Your task to perform on an android device: install app "Skype" Image 0: 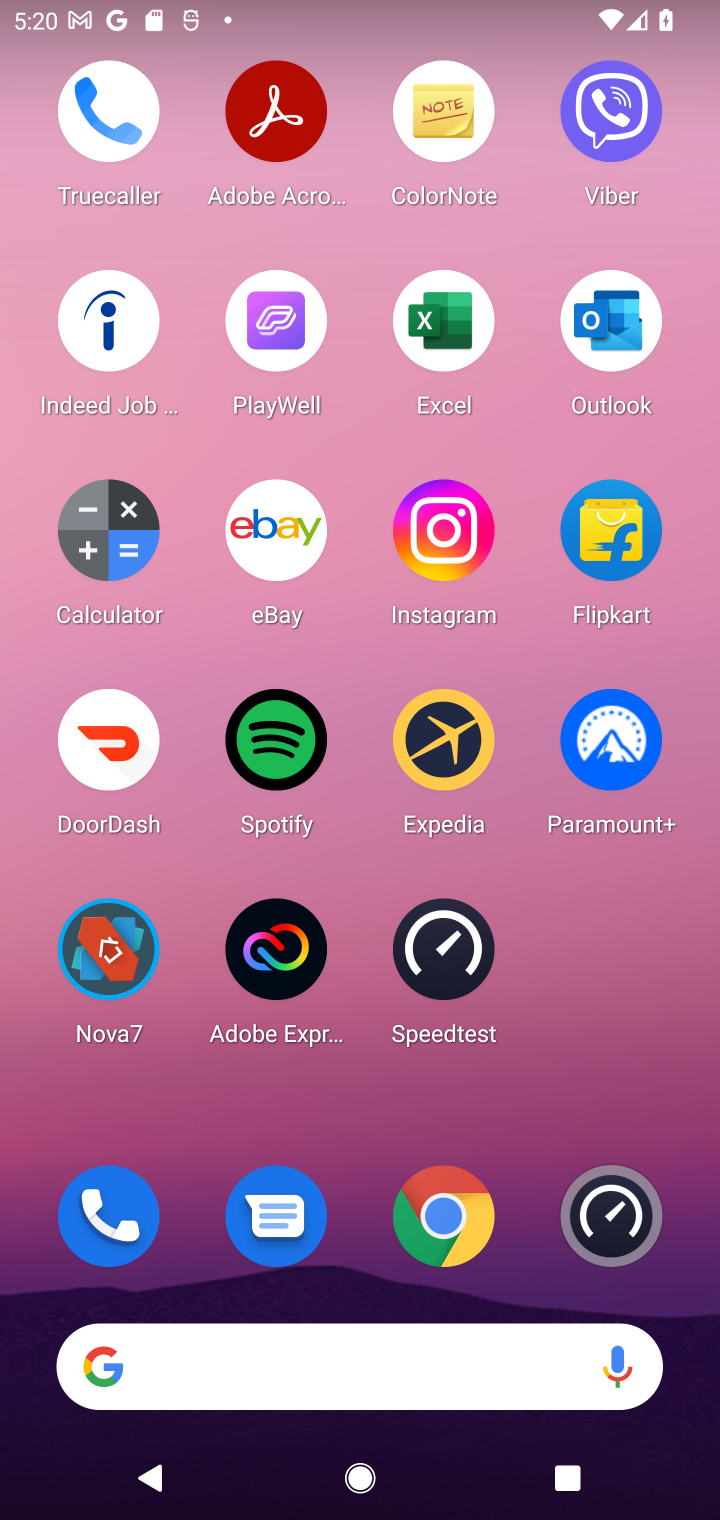
Step 0: drag from (356, 1174) to (397, 299)
Your task to perform on an android device: install app "Skype" Image 1: 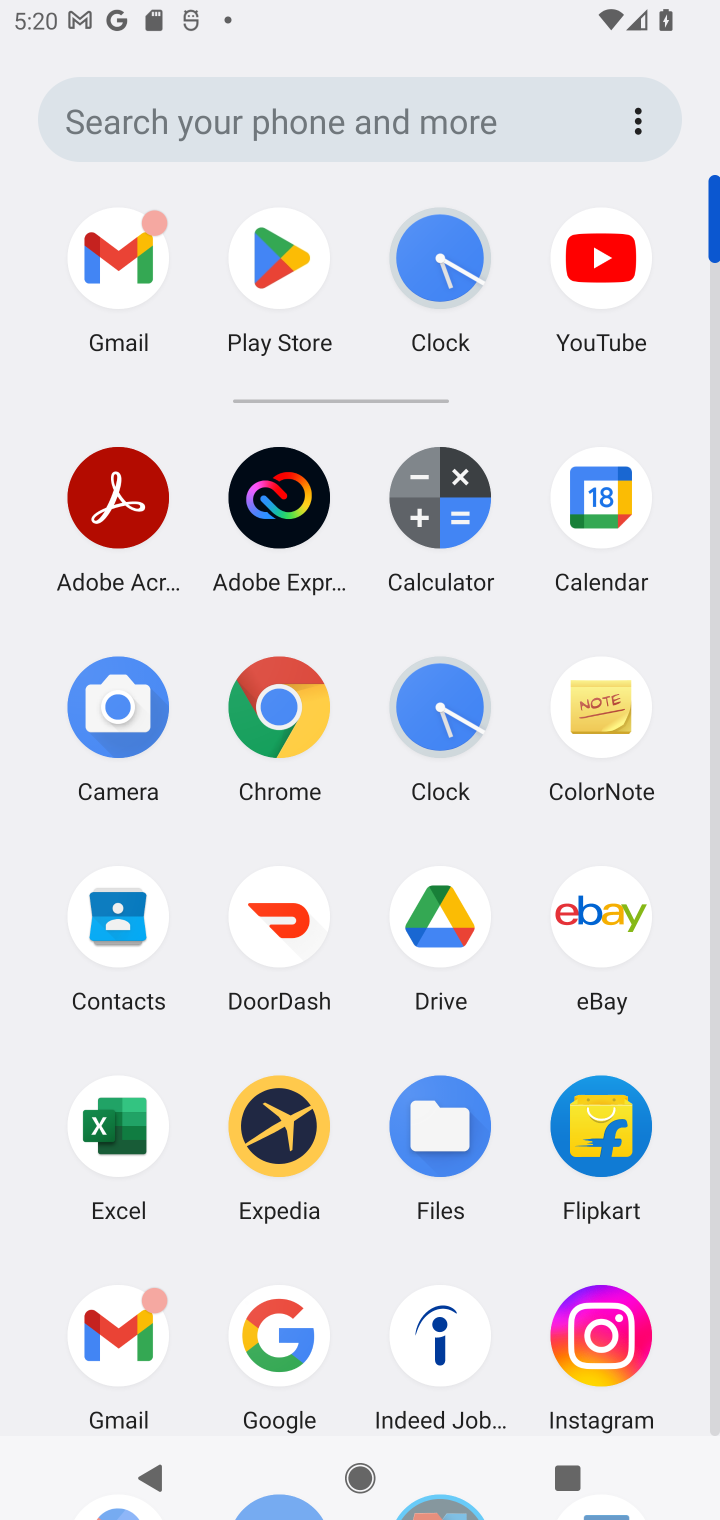
Step 1: drag from (508, 1247) to (525, 472)
Your task to perform on an android device: install app "Skype" Image 2: 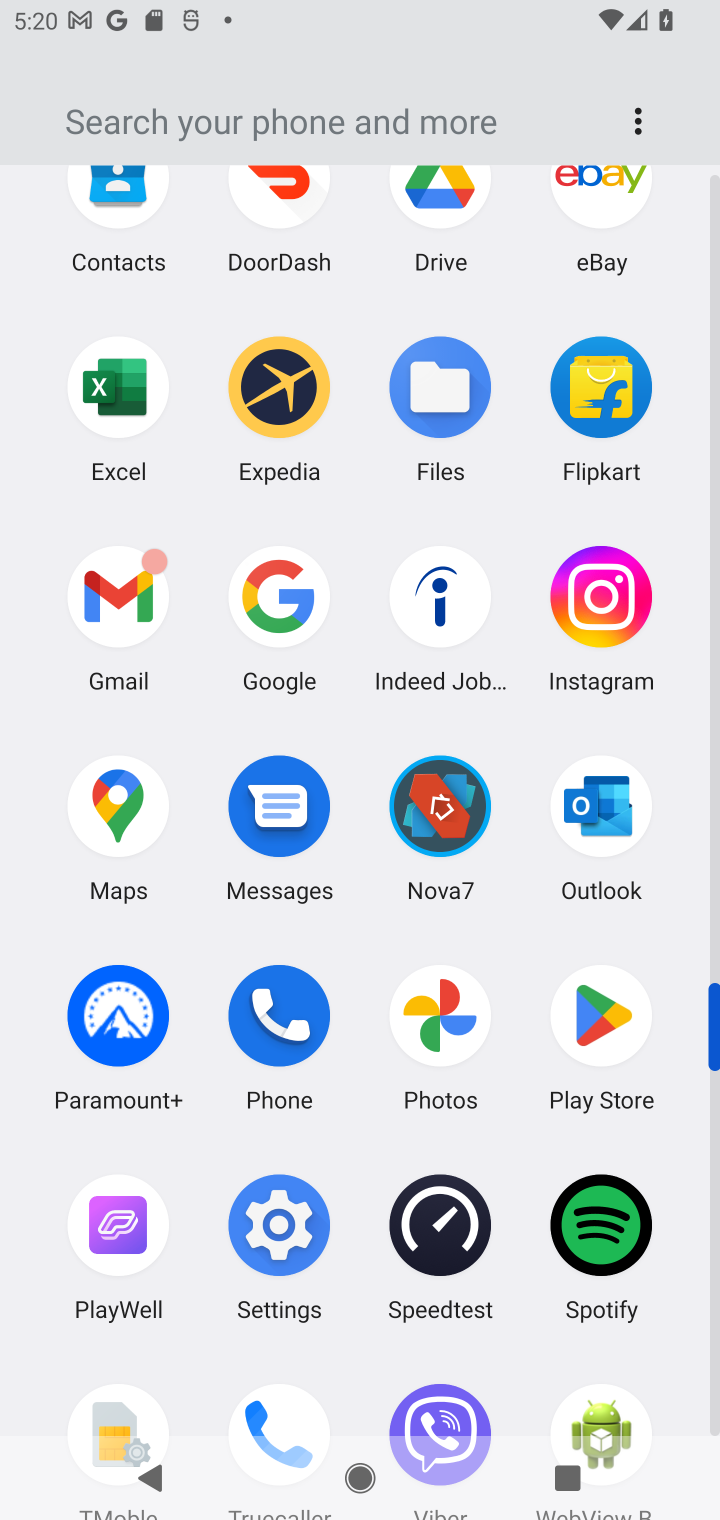
Step 2: click (606, 1018)
Your task to perform on an android device: install app "Skype" Image 3: 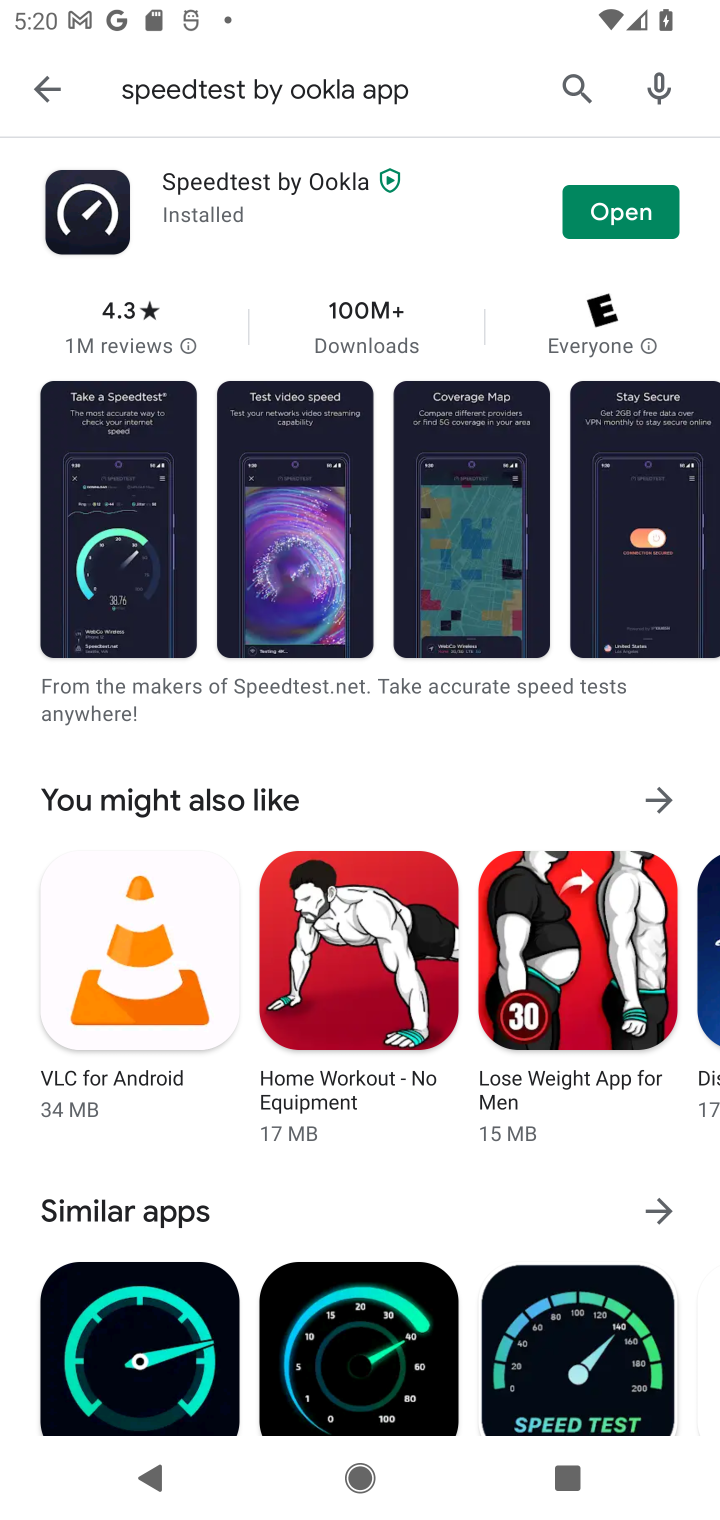
Step 3: click (570, 89)
Your task to perform on an android device: install app "Skype" Image 4: 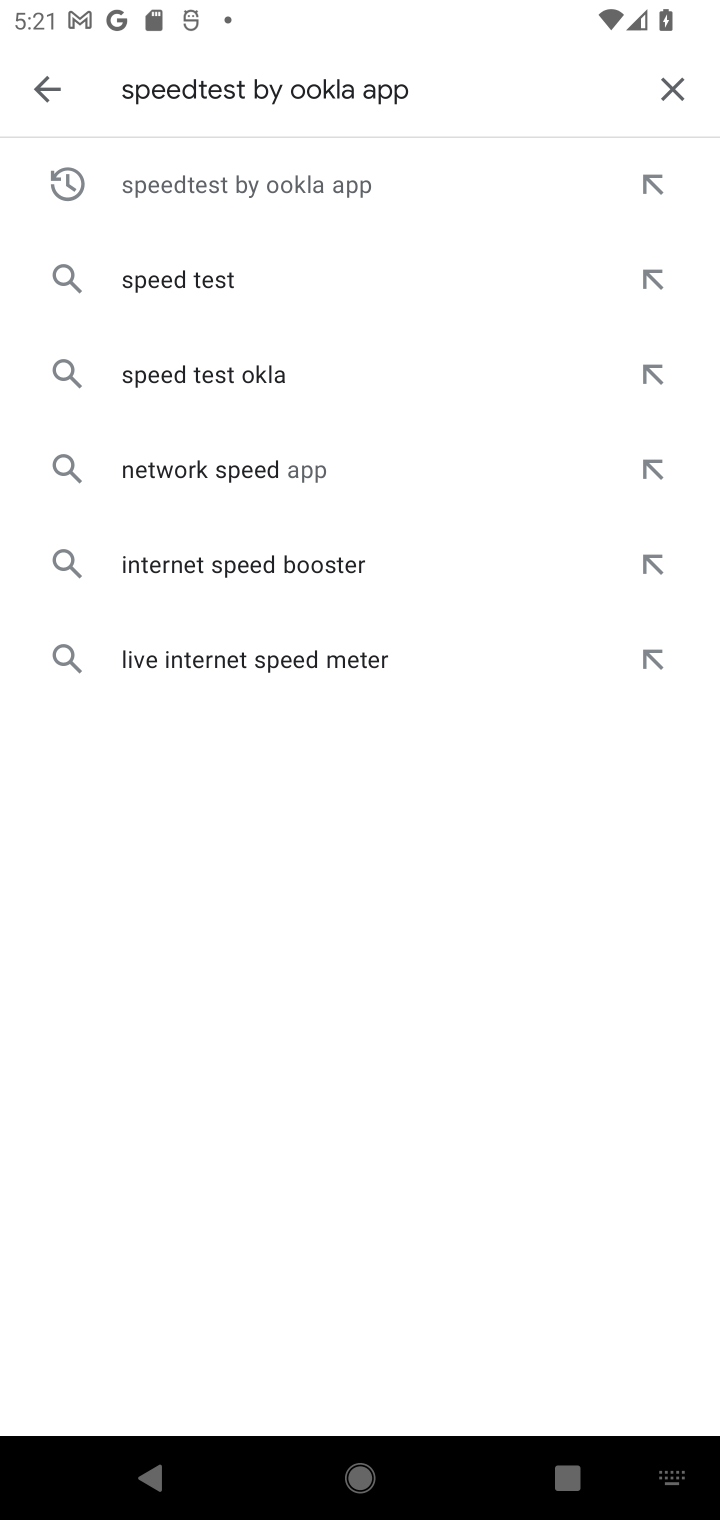
Step 4: click (672, 78)
Your task to perform on an android device: install app "Skype" Image 5: 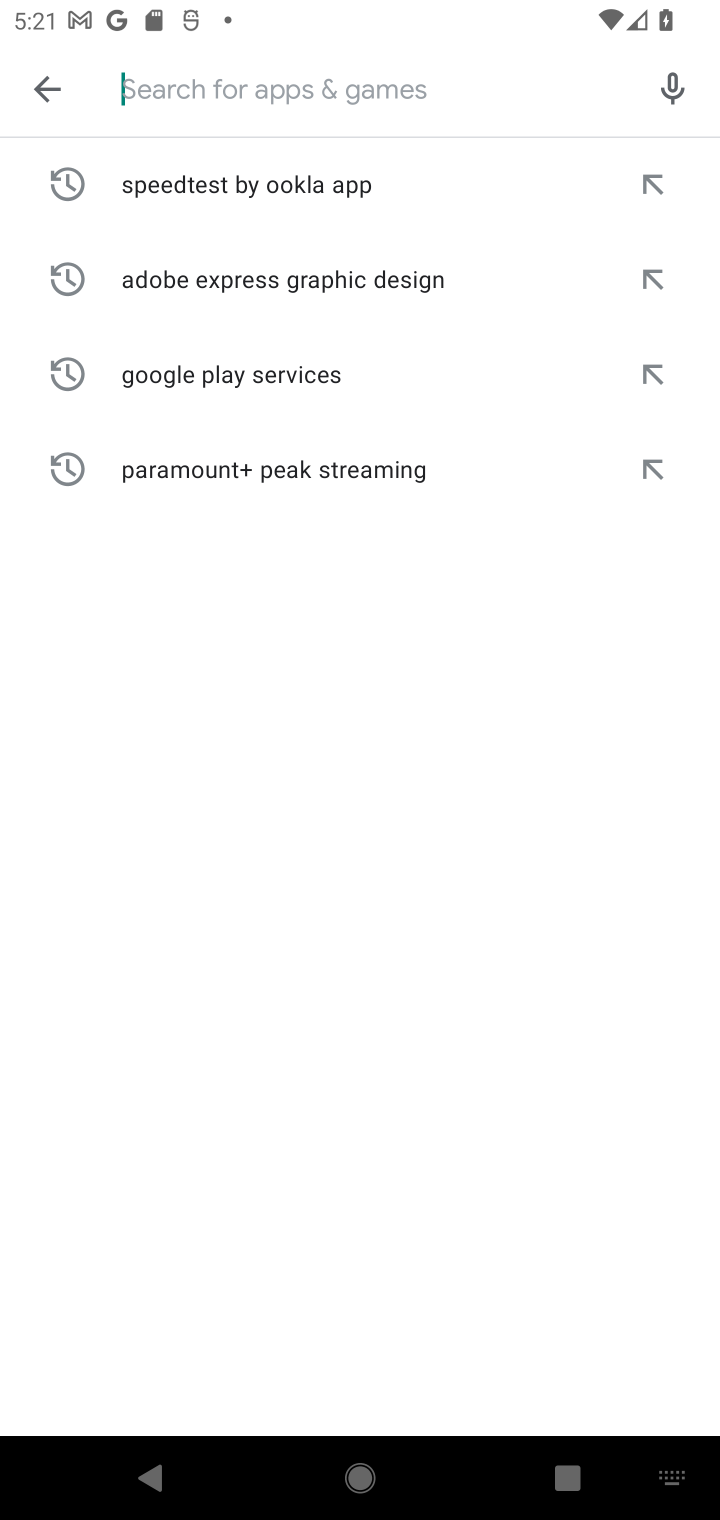
Step 5: type "Skype"
Your task to perform on an android device: install app "Skype" Image 6: 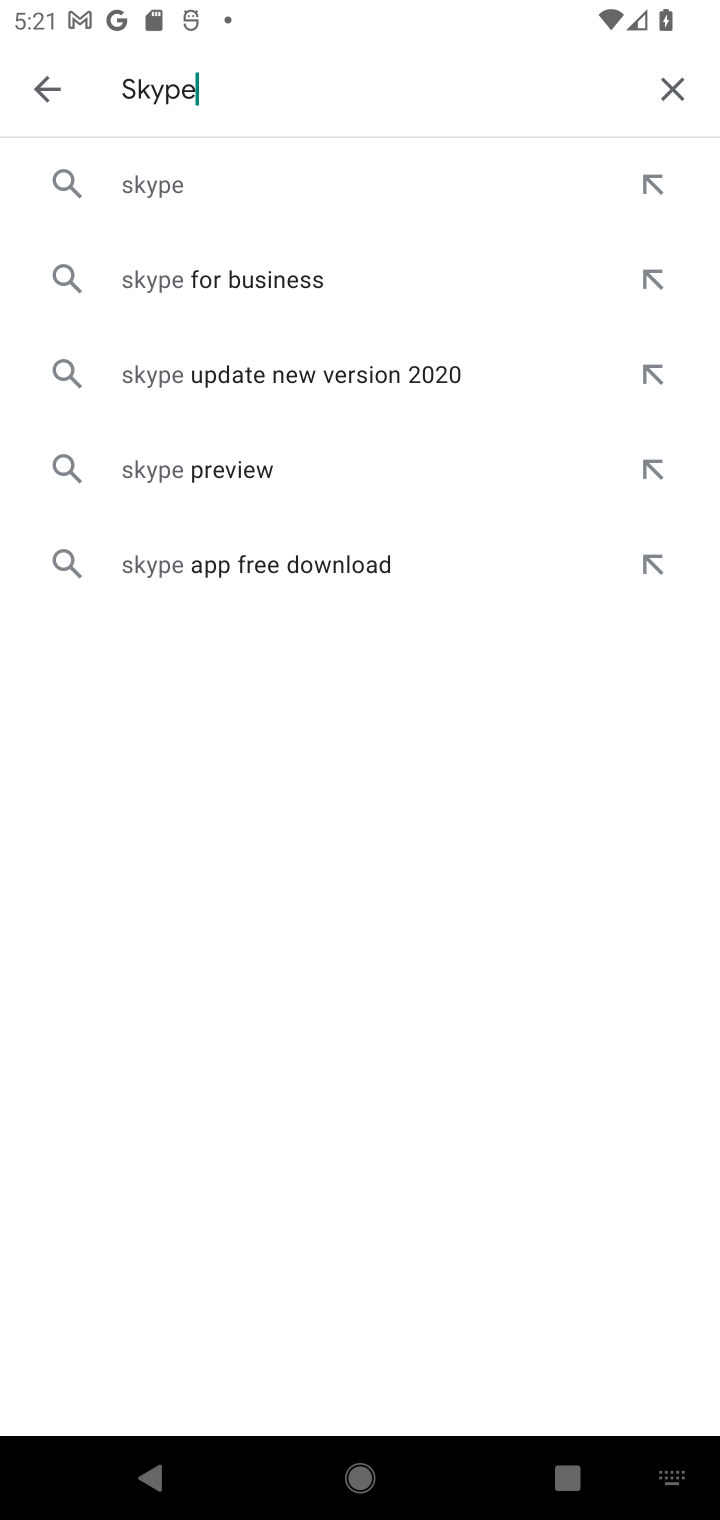
Step 6: click (143, 172)
Your task to perform on an android device: install app "Skype" Image 7: 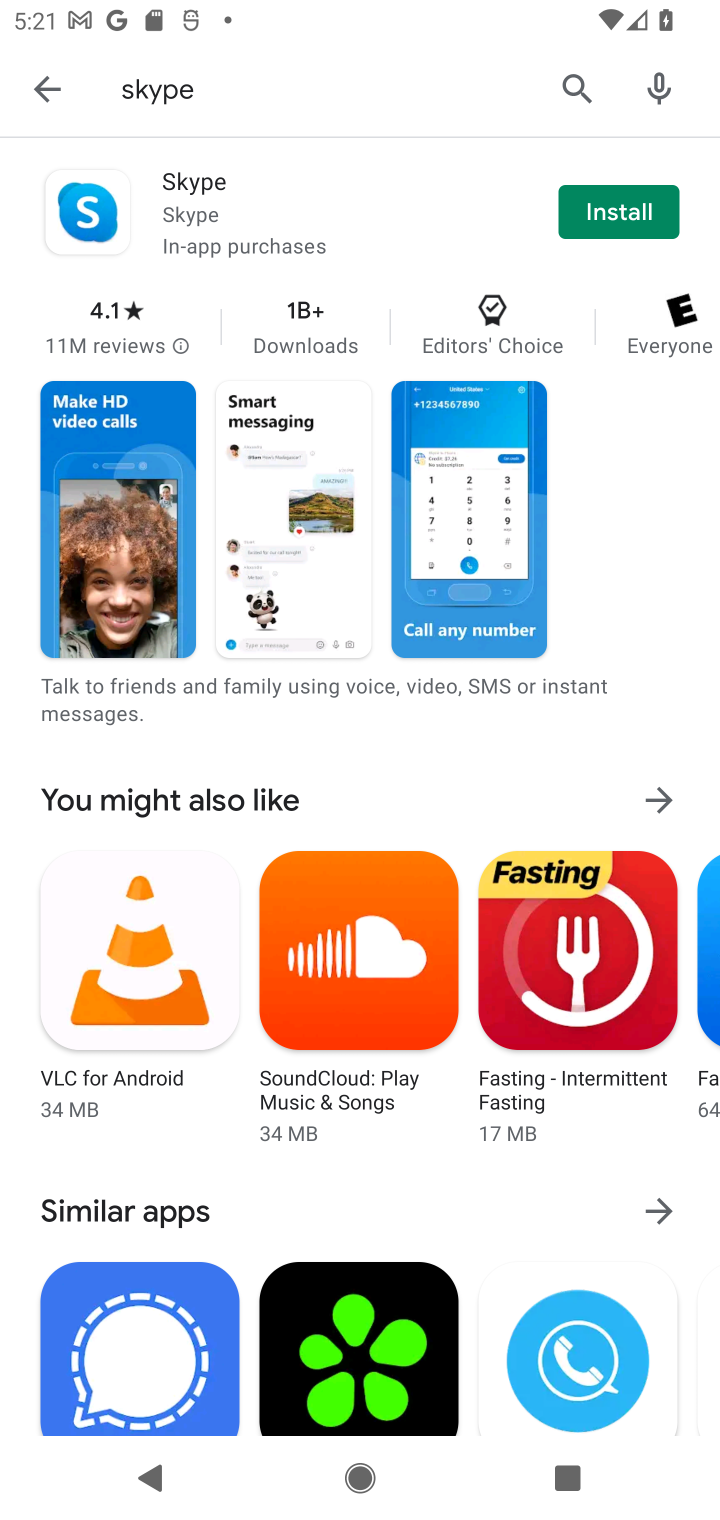
Step 7: click (623, 223)
Your task to perform on an android device: install app "Skype" Image 8: 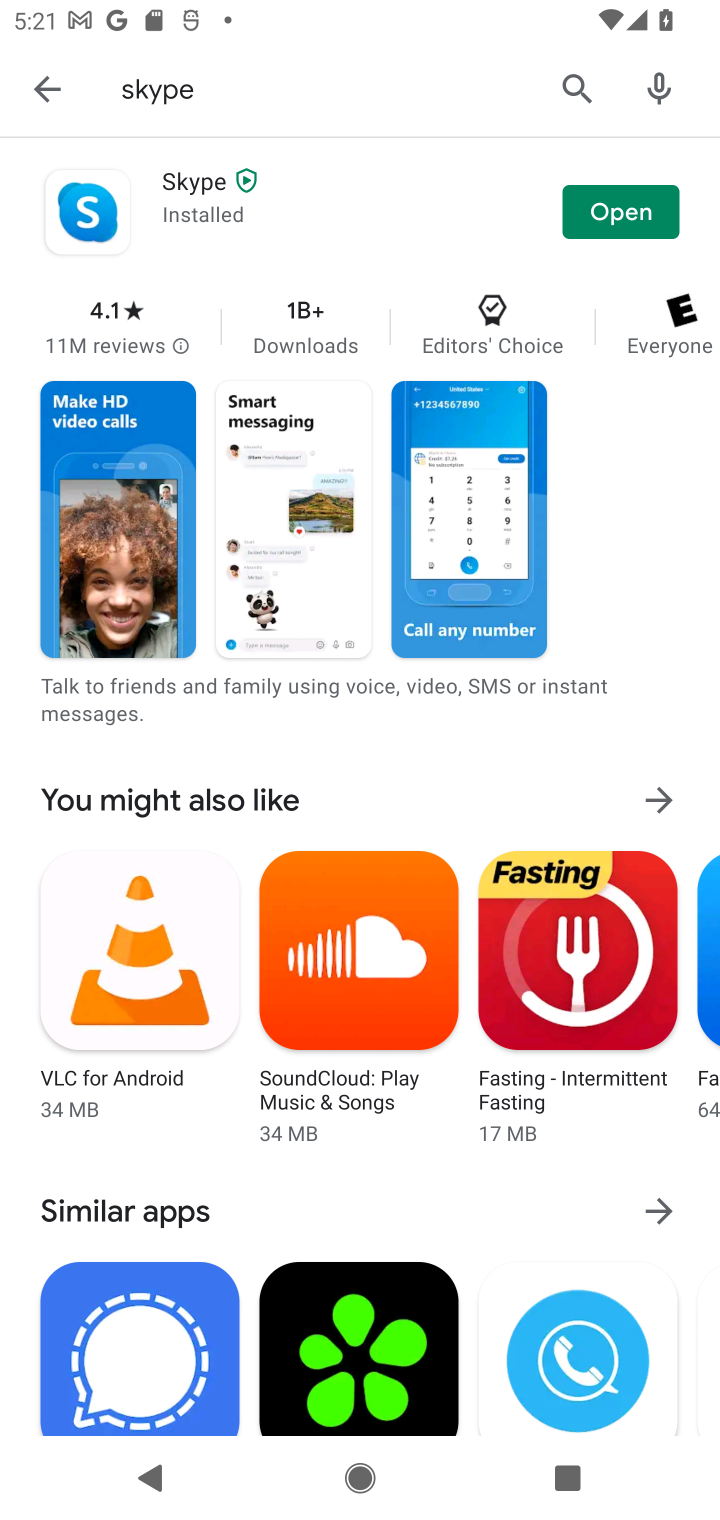
Step 8: task complete